Your task to perform on an android device: Go to Wikipedia Image 0: 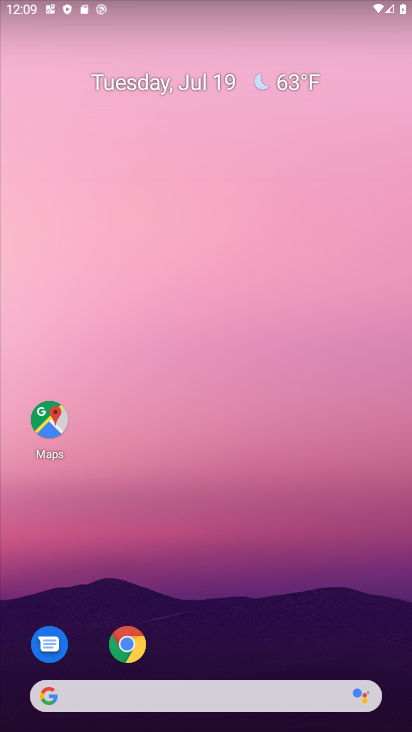
Step 0: click (126, 641)
Your task to perform on an android device: Go to Wikipedia Image 1: 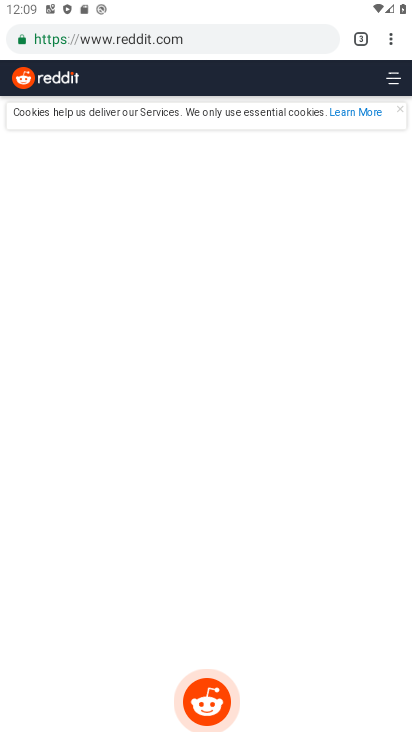
Step 1: click (393, 38)
Your task to perform on an android device: Go to Wikipedia Image 2: 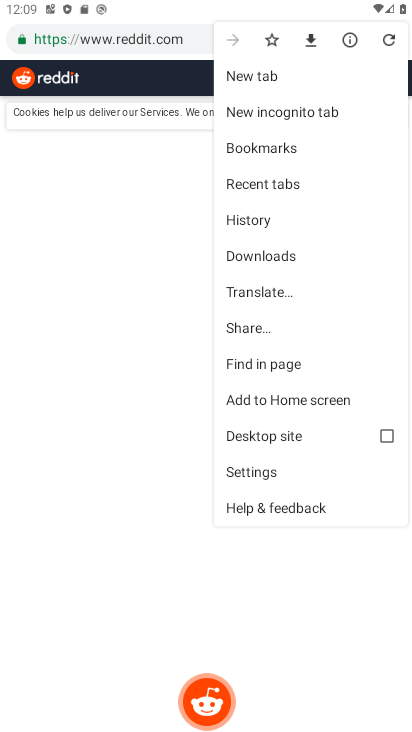
Step 2: click (263, 73)
Your task to perform on an android device: Go to Wikipedia Image 3: 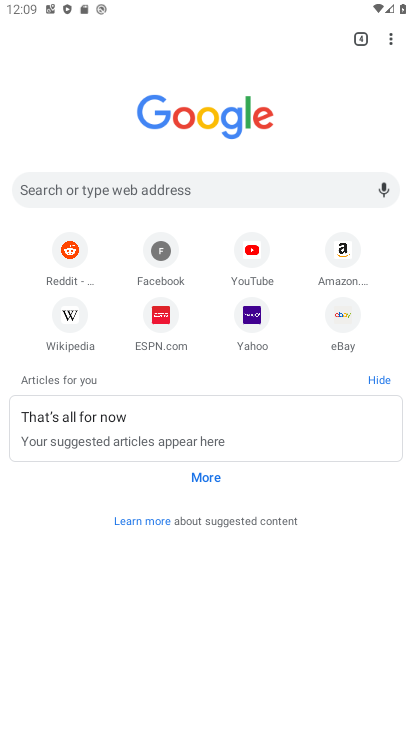
Step 3: click (67, 320)
Your task to perform on an android device: Go to Wikipedia Image 4: 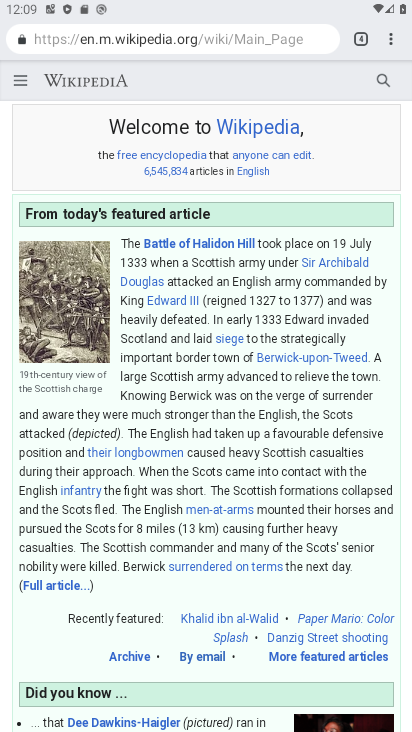
Step 4: task complete